Your task to perform on an android device: Clear all items from cart on costco. Add "usb-c to usb-a" to the cart on costco, then select checkout. Image 0: 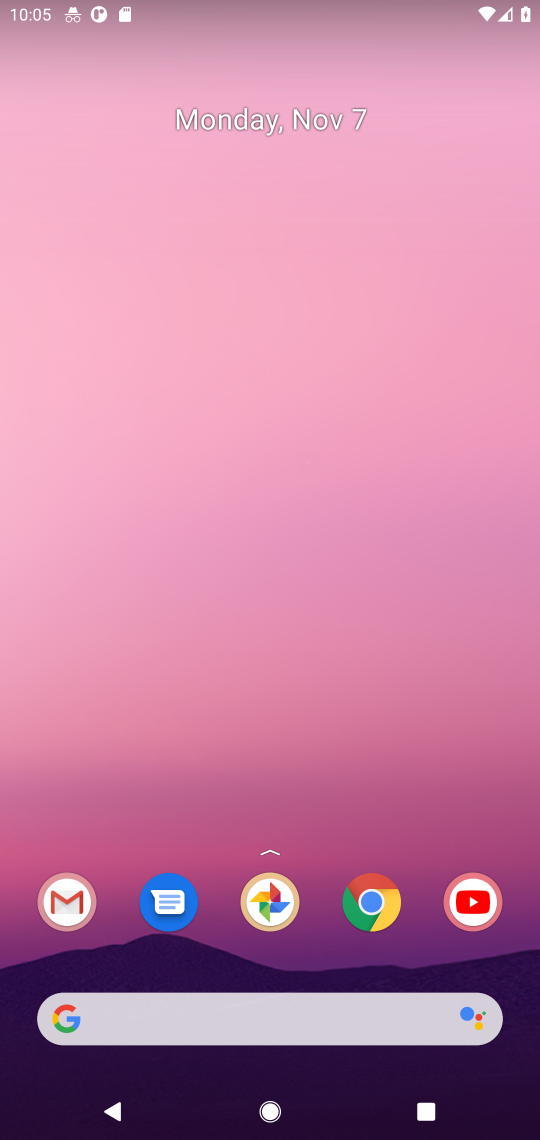
Step 0: click (380, 918)
Your task to perform on an android device: Clear all items from cart on costco. Add "usb-c to usb-a" to the cart on costco, then select checkout. Image 1: 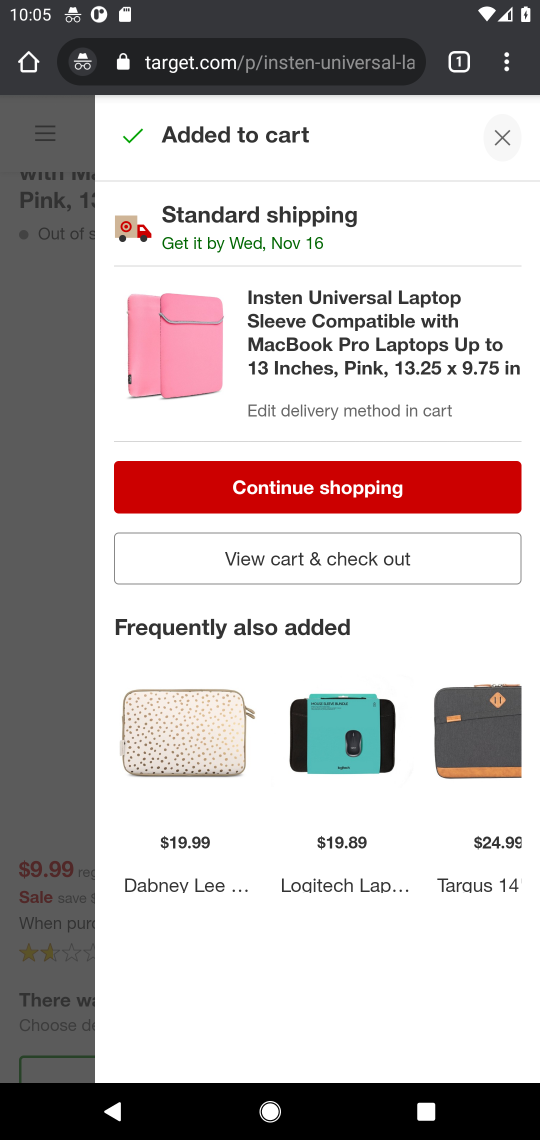
Step 1: click (507, 142)
Your task to perform on an android device: Clear all items from cart on costco. Add "usb-c to usb-a" to the cart on costco, then select checkout. Image 2: 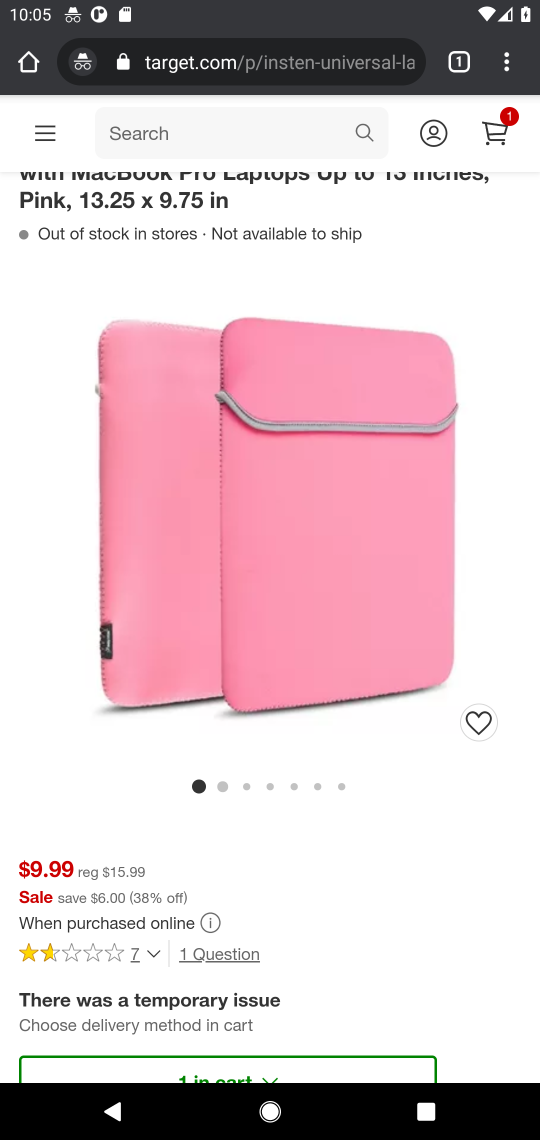
Step 2: click (245, 65)
Your task to perform on an android device: Clear all items from cart on costco. Add "usb-c to usb-a" to the cart on costco, then select checkout. Image 3: 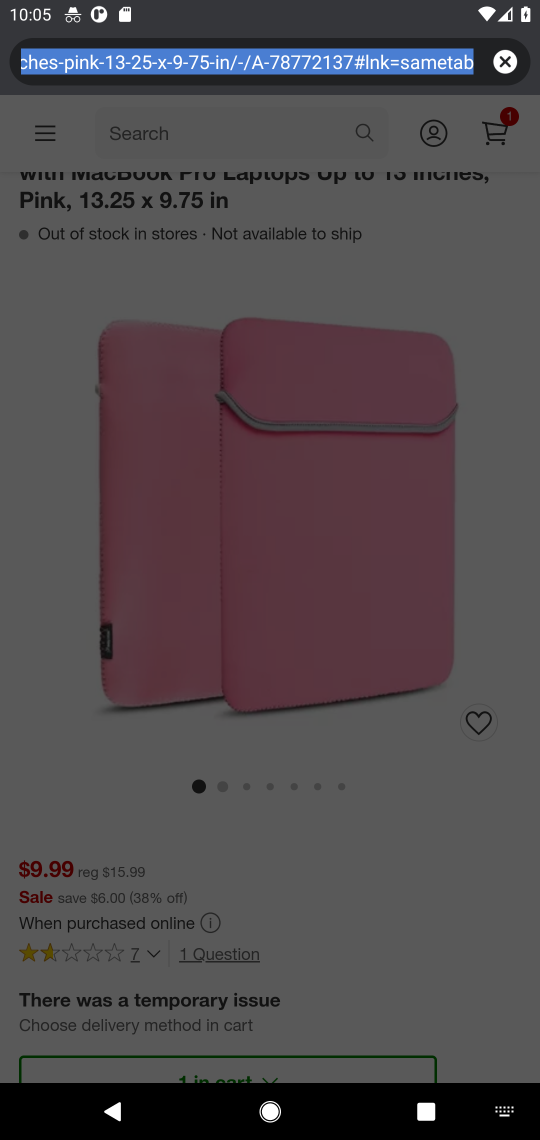
Step 3: click (502, 65)
Your task to perform on an android device: Clear all items from cart on costco. Add "usb-c to usb-a" to the cart on costco, then select checkout. Image 4: 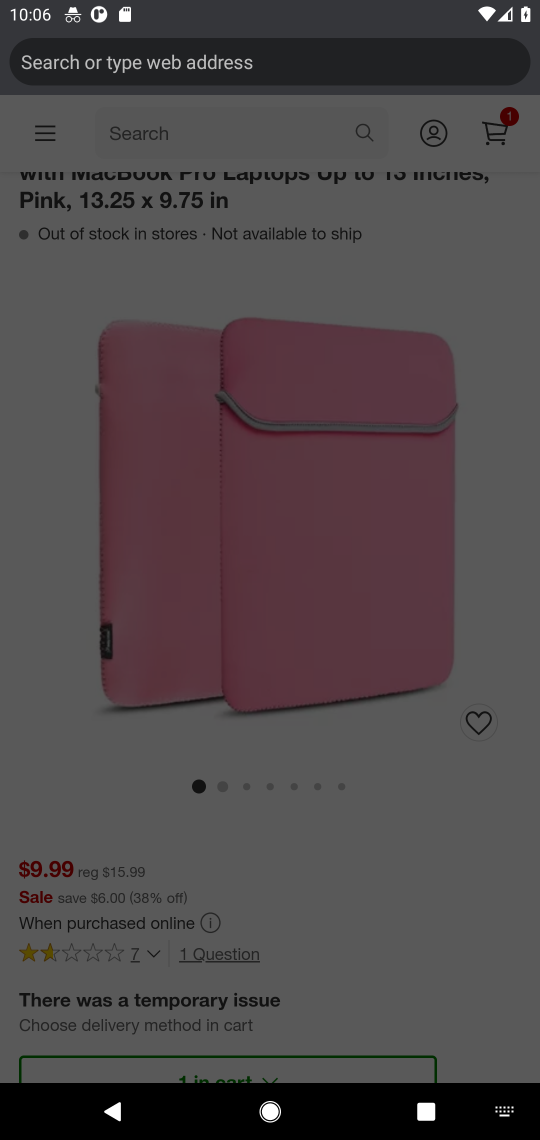
Step 4: type "costco.com"
Your task to perform on an android device: Clear all items from cart on costco. Add "usb-c to usb-a" to the cart on costco, then select checkout. Image 5: 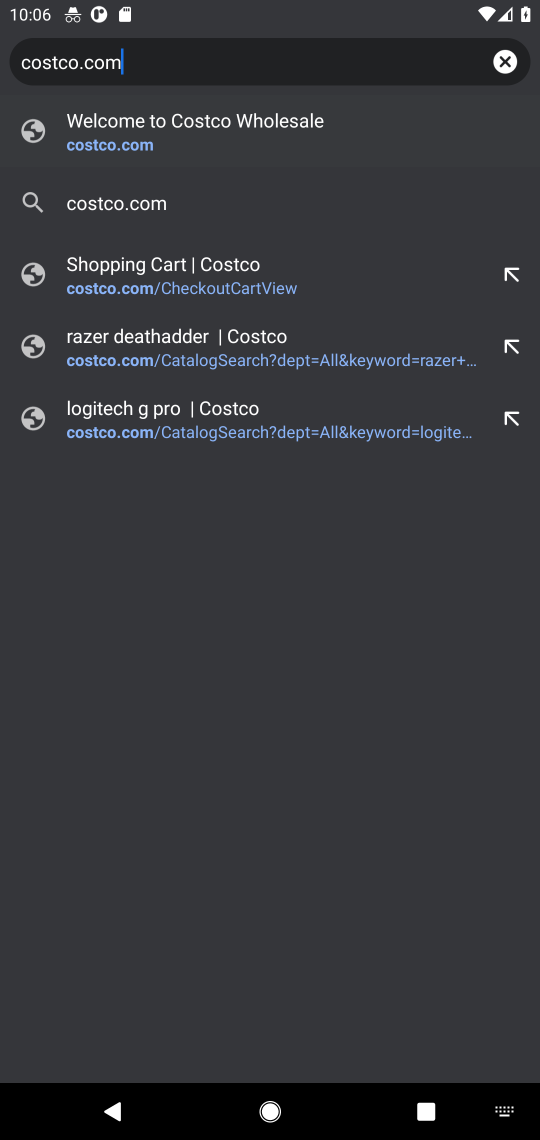
Step 5: click (116, 145)
Your task to perform on an android device: Clear all items from cart on costco. Add "usb-c to usb-a" to the cart on costco, then select checkout. Image 6: 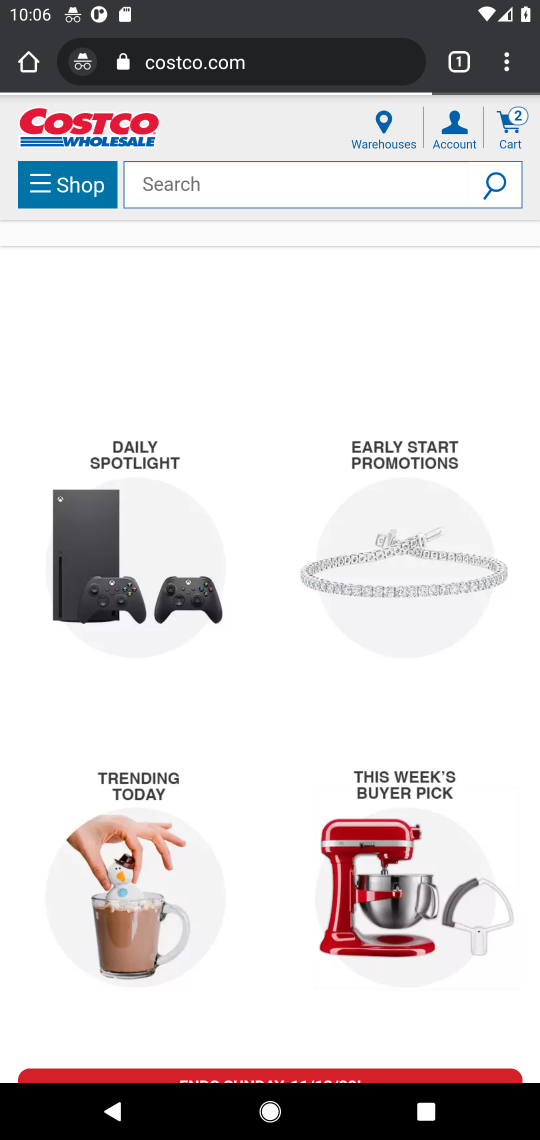
Step 6: click (507, 134)
Your task to perform on an android device: Clear all items from cart on costco. Add "usb-c to usb-a" to the cart on costco, then select checkout. Image 7: 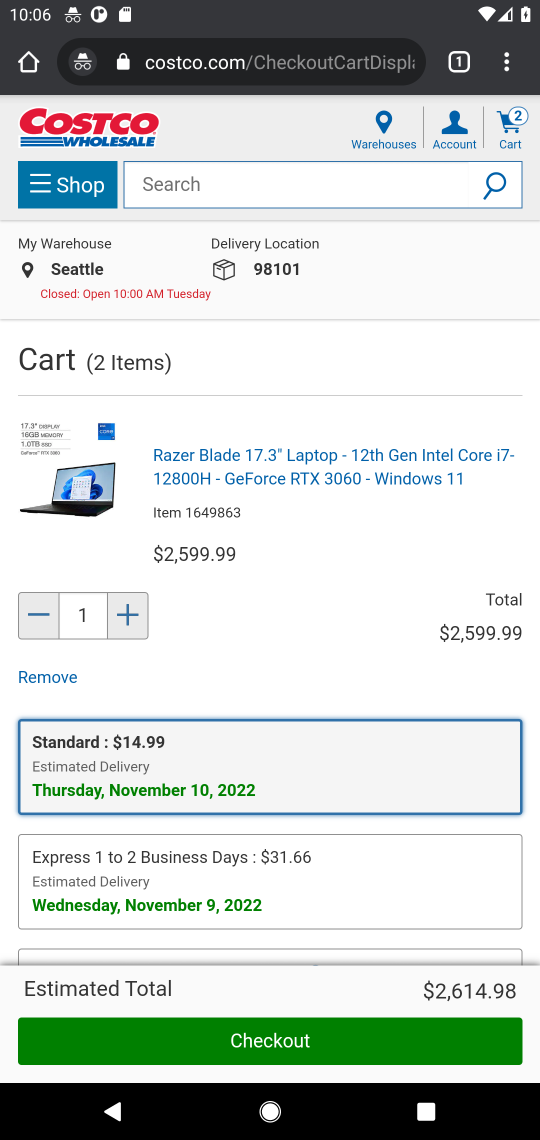
Step 7: drag from (233, 836) to (227, 469)
Your task to perform on an android device: Clear all items from cart on costco. Add "usb-c to usb-a" to the cart on costco, then select checkout. Image 8: 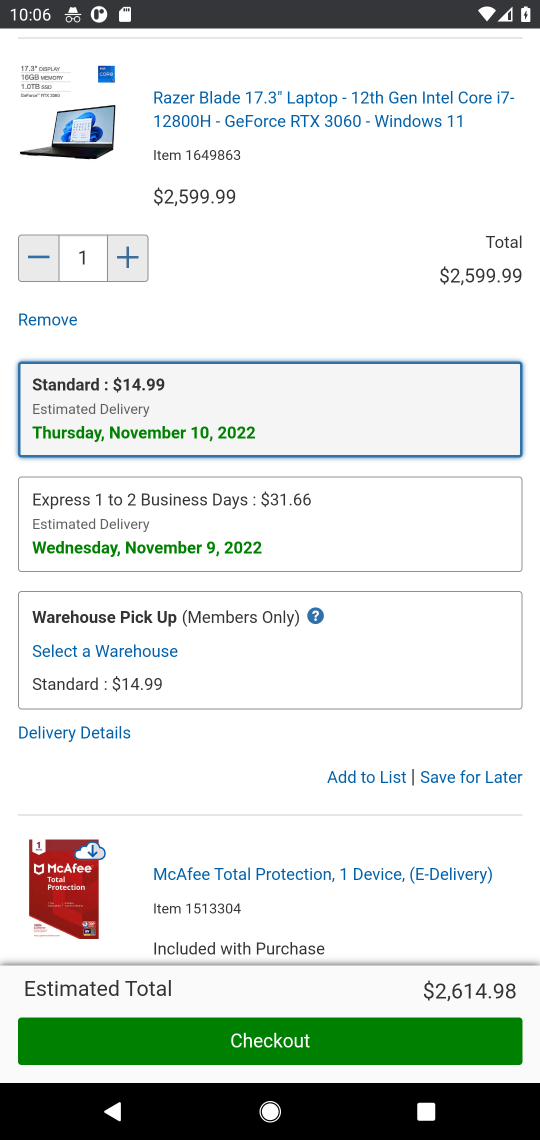
Step 8: click (497, 774)
Your task to perform on an android device: Clear all items from cart on costco. Add "usb-c to usb-a" to the cart on costco, then select checkout. Image 9: 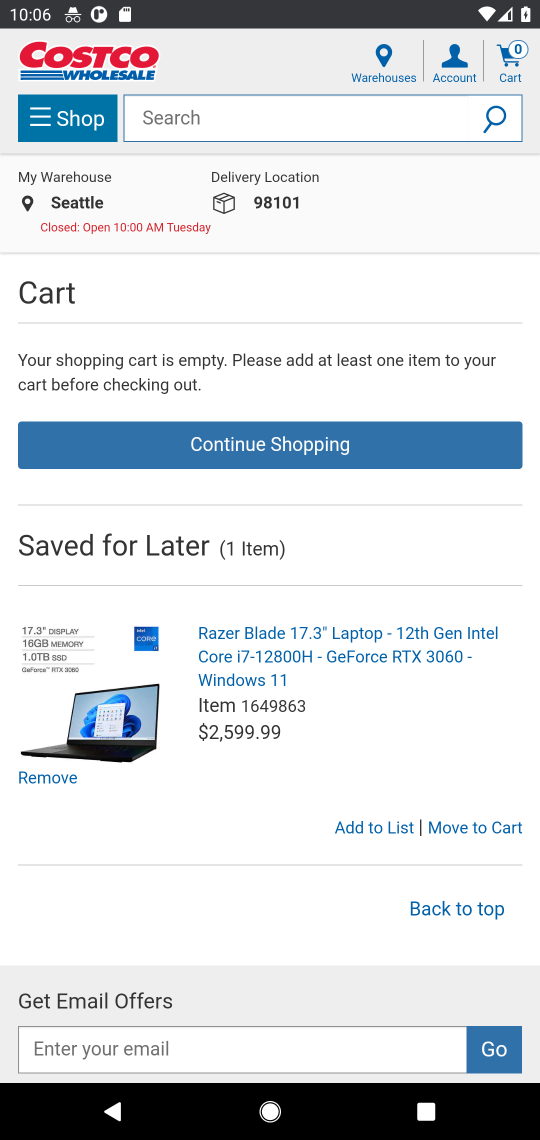
Step 9: click (233, 124)
Your task to perform on an android device: Clear all items from cart on costco. Add "usb-c to usb-a" to the cart on costco, then select checkout. Image 10: 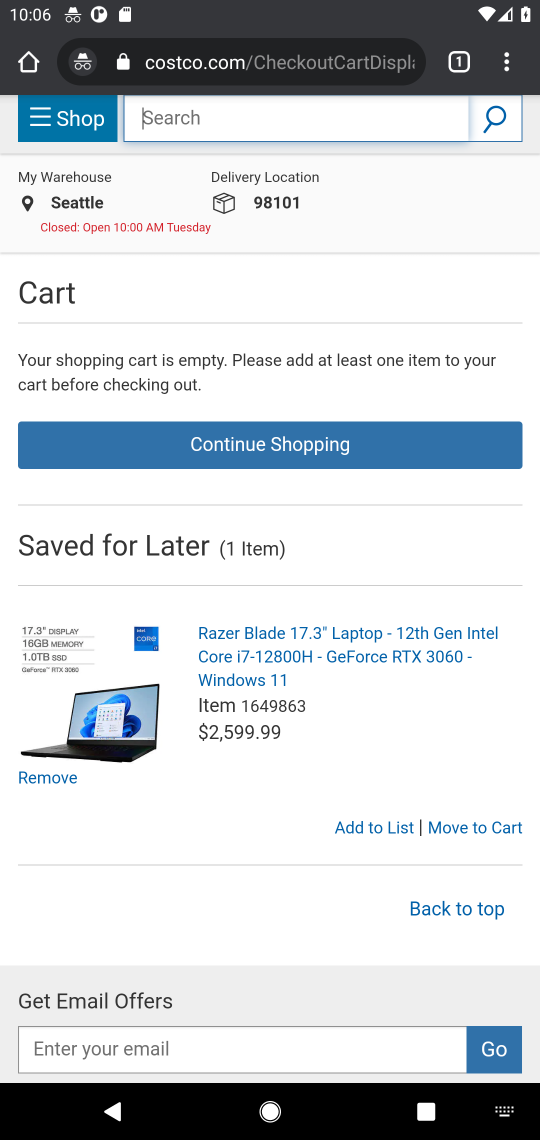
Step 10: type "usb-c to usb-a"
Your task to perform on an android device: Clear all items from cart on costco. Add "usb-c to usb-a" to the cart on costco, then select checkout. Image 11: 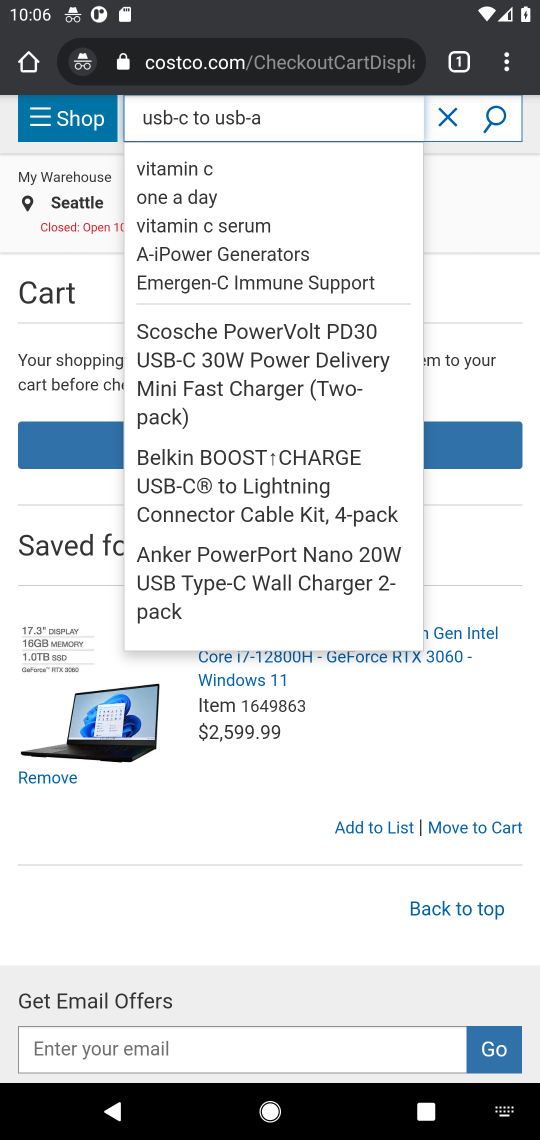
Step 11: click (500, 117)
Your task to perform on an android device: Clear all items from cart on costco. Add "usb-c to usb-a" to the cart on costco, then select checkout. Image 12: 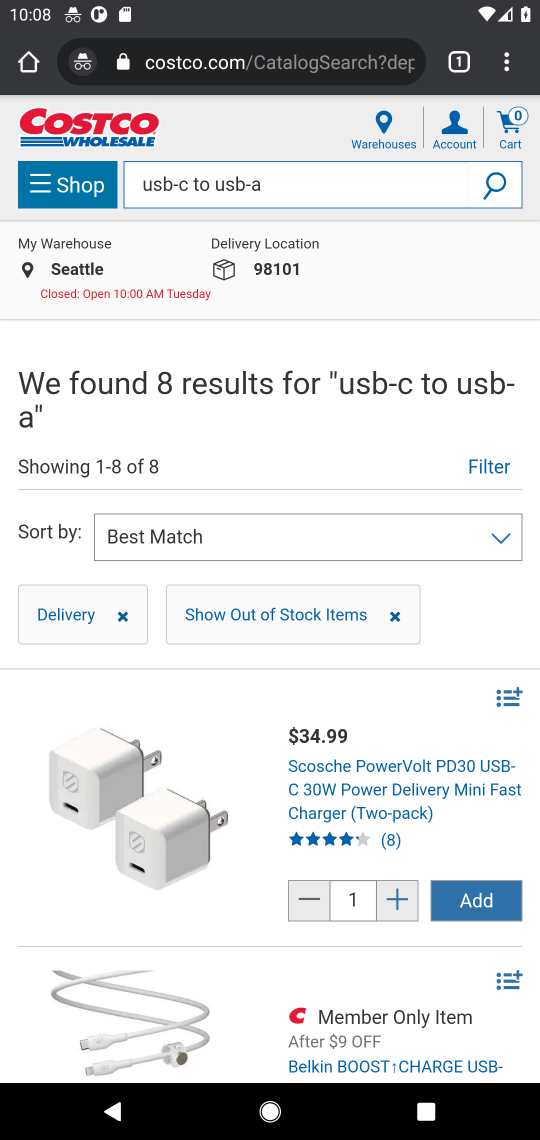
Step 12: task complete